Your task to perform on an android device: Go to wifi settings Image 0: 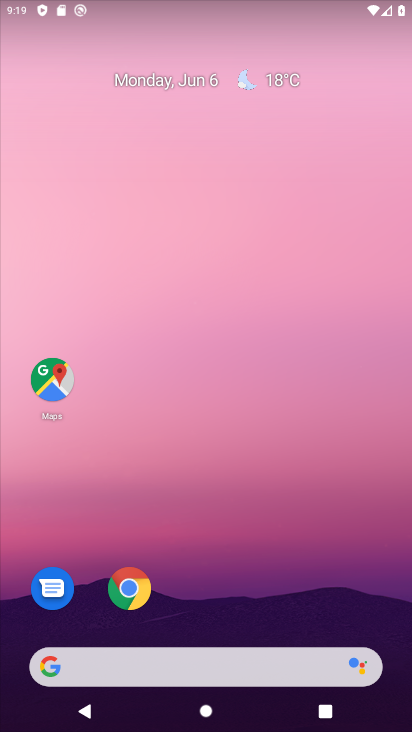
Step 0: drag from (202, 611) to (348, 59)
Your task to perform on an android device: Go to wifi settings Image 1: 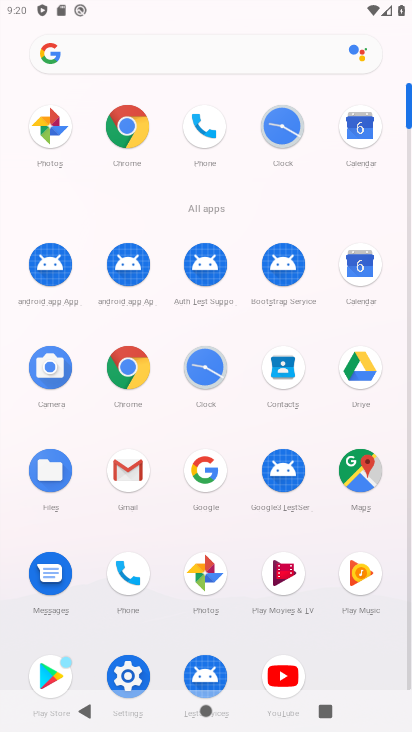
Step 1: click (131, 662)
Your task to perform on an android device: Go to wifi settings Image 2: 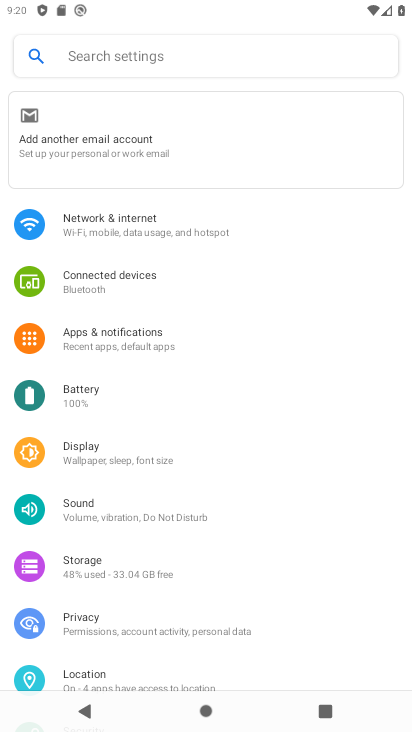
Step 2: click (127, 221)
Your task to perform on an android device: Go to wifi settings Image 3: 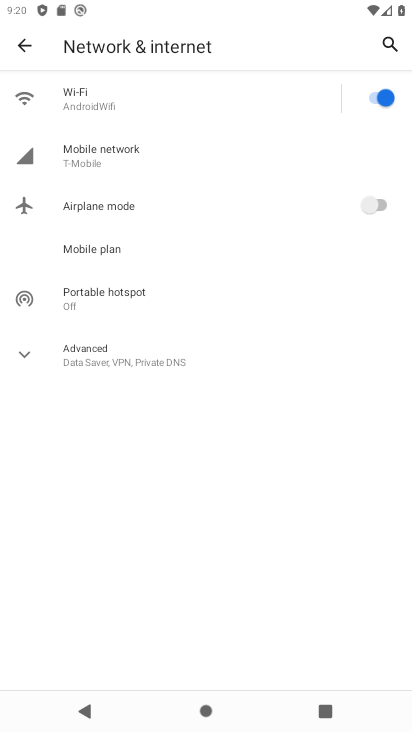
Step 3: click (117, 109)
Your task to perform on an android device: Go to wifi settings Image 4: 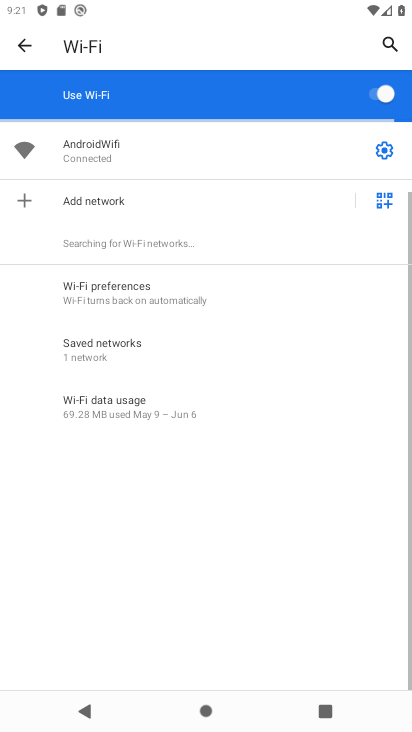
Step 4: task complete